Your task to perform on an android device: turn vacation reply on in the gmail app Image 0: 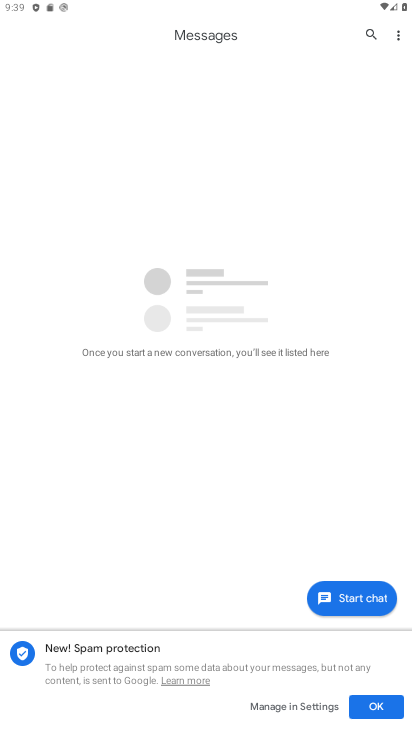
Step 0: press home button
Your task to perform on an android device: turn vacation reply on in the gmail app Image 1: 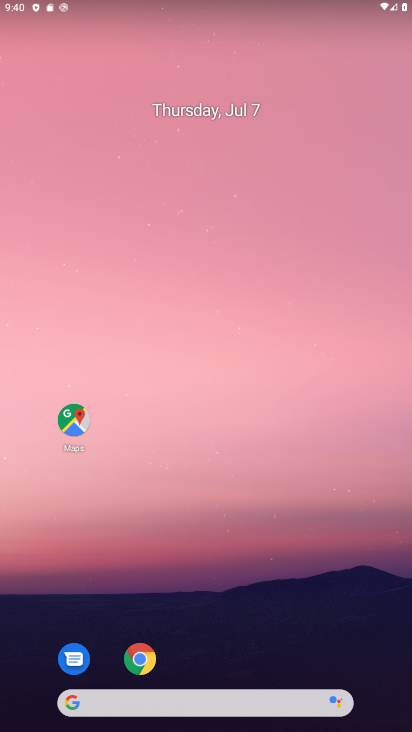
Step 1: drag from (226, 609) to (180, 114)
Your task to perform on an android device: turn vacation reply on in the gmail app Image 2: 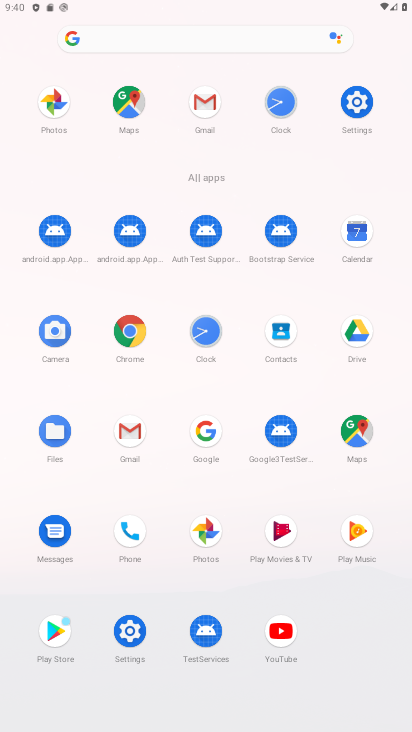
Step 2: click (202, 96)
Your task to perform on an android device: turn vacation reply on in the gmail app Image 3: 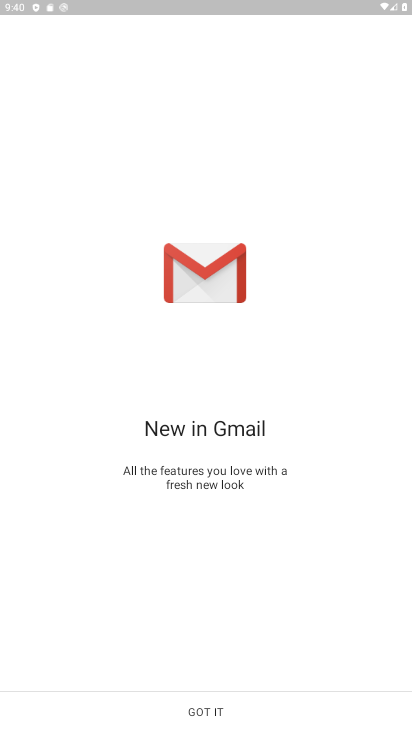
Step 3: click (213, 704)
Your task to perform on an android device: turn vacation reply on in the gmail app Image 4: 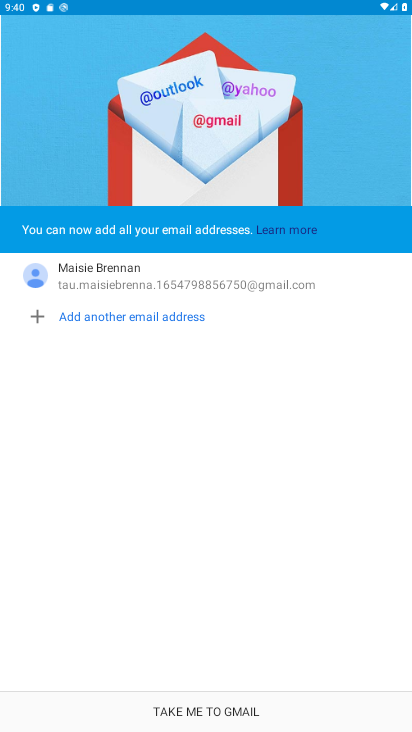
Step 4: click (210, 713)
Your task to perform on an android device: turn vacation reply on in the gmail app Image 5: 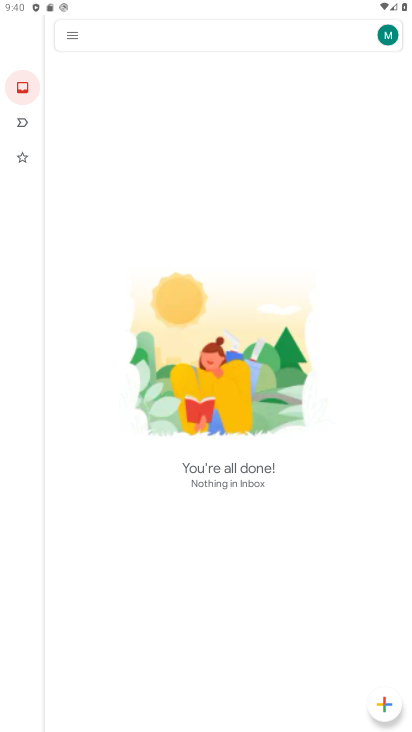
Step 5: click (68, 33)
Your task to perform on an android device: turn vacation reply on in the gmail app Image 6: 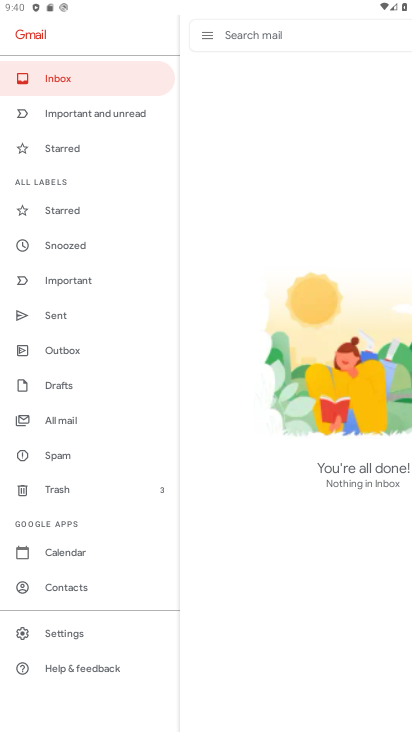
Step 6: click (70, 631)
Your task to perform on an android device: turn vacation reply on in the gmail app Image 7: 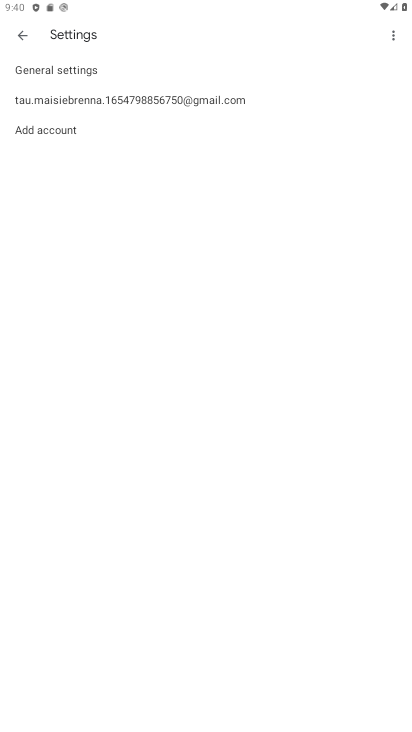
Step 7: click (87, 95)
Your task to perform on an android device: turn vacation reply on in the gmail app Image 8: 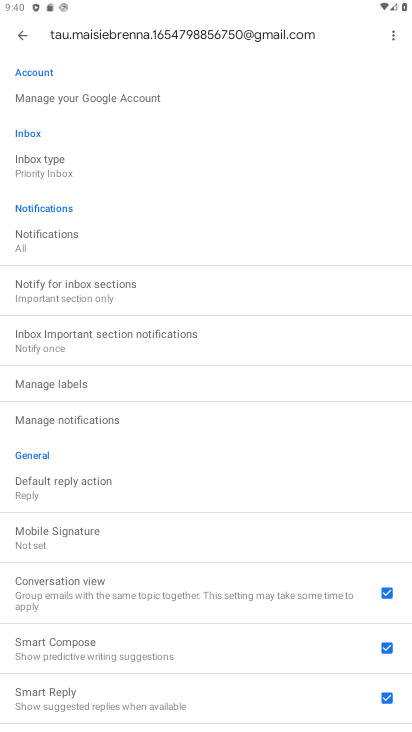
Step 8: drag from (246, 634) to (238, 369)
Your task to perform on an android device: turn vacation reply on in the gmail app Image 9: 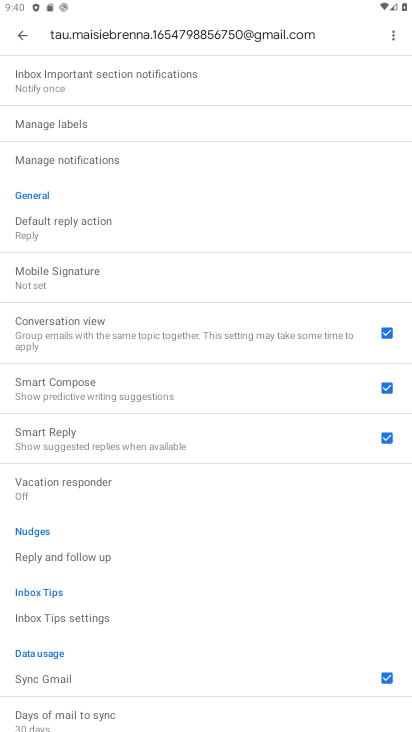
Step 9: click (77, 475)
Your task to perform on an android device: turn vacation reply on in the gmail app Image 10: 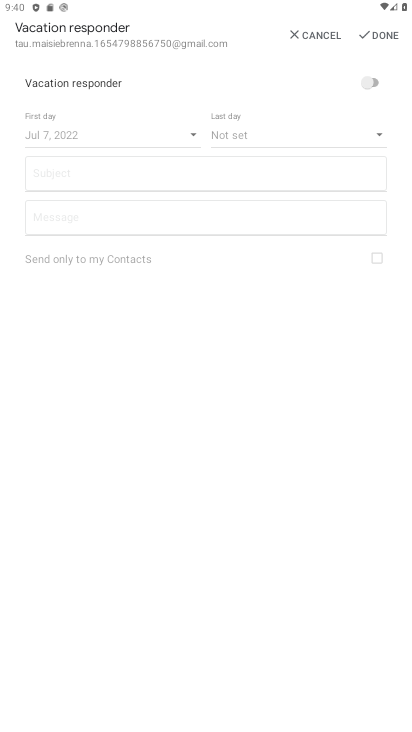
Step 10: click (361, 85)
Your task to perform on an android device: turn vacation reply on in the gmail app Image 11: 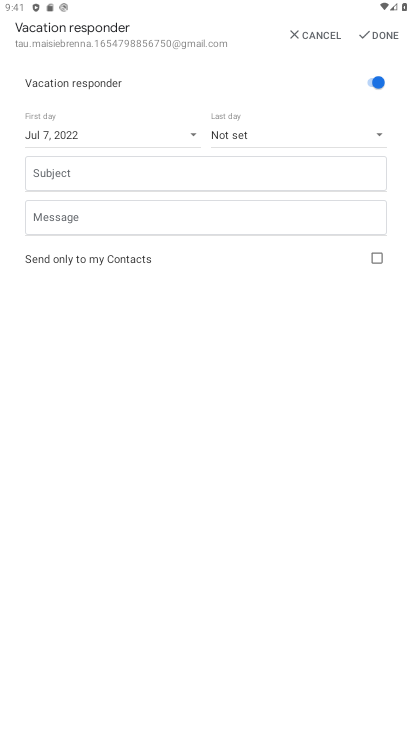
Step 11: task complete